Your task to perform on an android device: check the backup settings in the google photos Image 0: 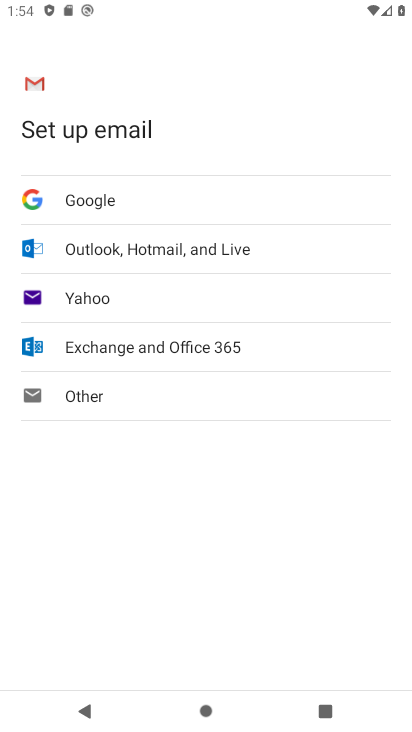
Step 0: press home button
Your task to perform on an android device: check the backup settings in the google photos Image 1: 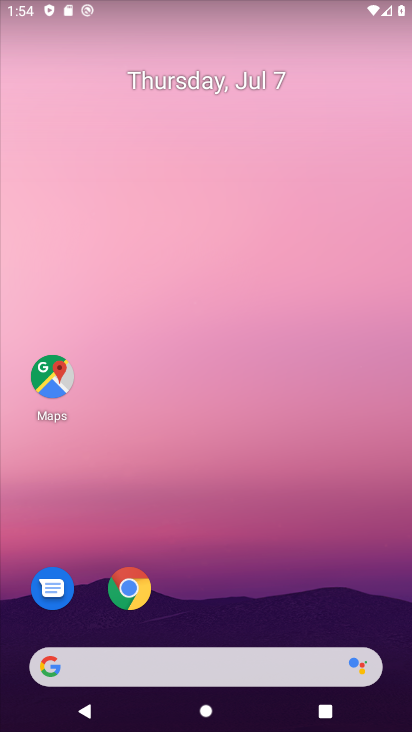
Step 1: drag from (343, 602) to (312, 40)
Your task to perform on an android device: check the backup settings in the google photos Image 2: 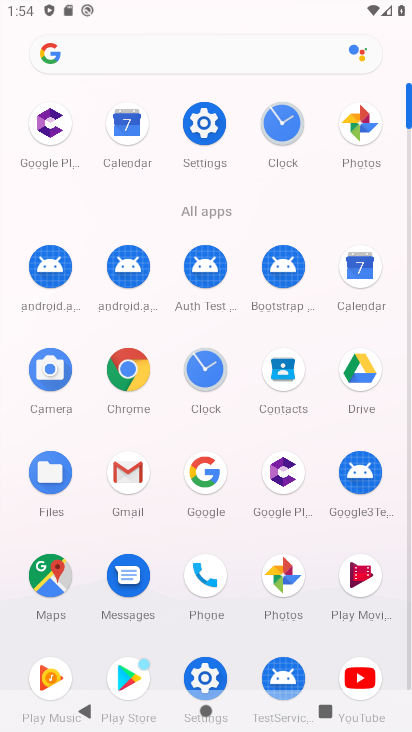
Step 2: click (281, 574)
Your task to perform on an android device: check the backup settings in the google photos Image 3: 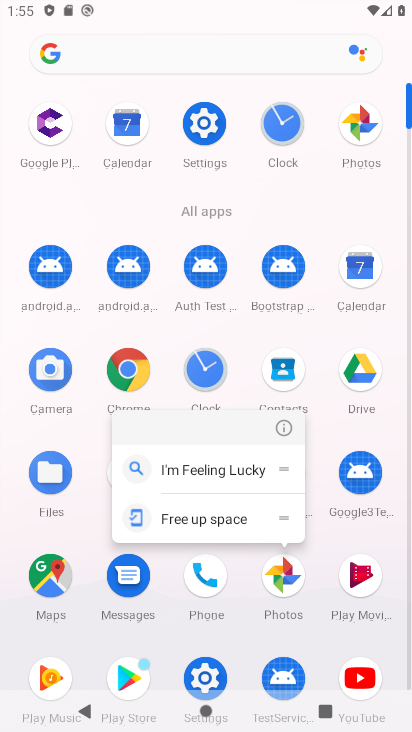
Step 3: click (281, 574)
Your task to perform on an android device: check the backup settings in the google photos Image 4: 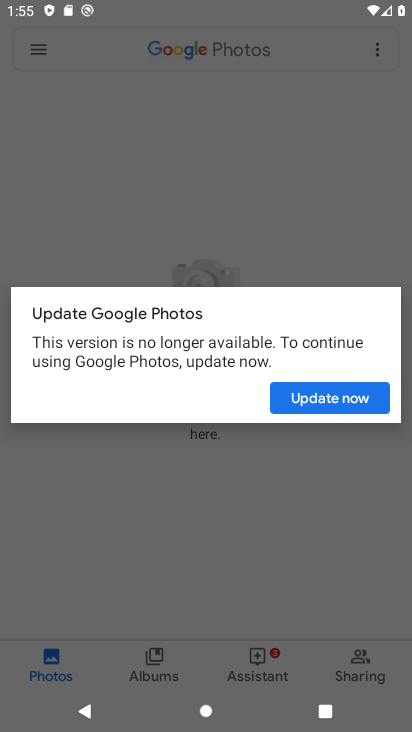
Step 4: click (326, 392)
Your task to perform on an android device: check the backup settings in the google photos Image 5: 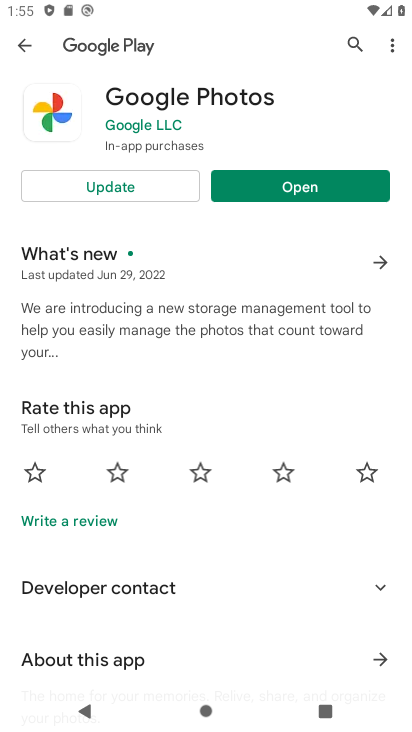
Step 5: click (102, 183)
Your task to perform on an android device: check the backup settings in the google photos Image 6: 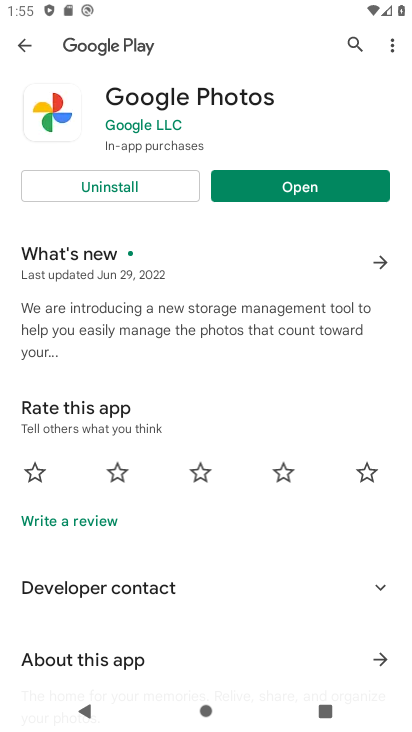
Step 6: click (301, 188)
Your task to perform on an android device: check the backup settings in the google photos Image 7: 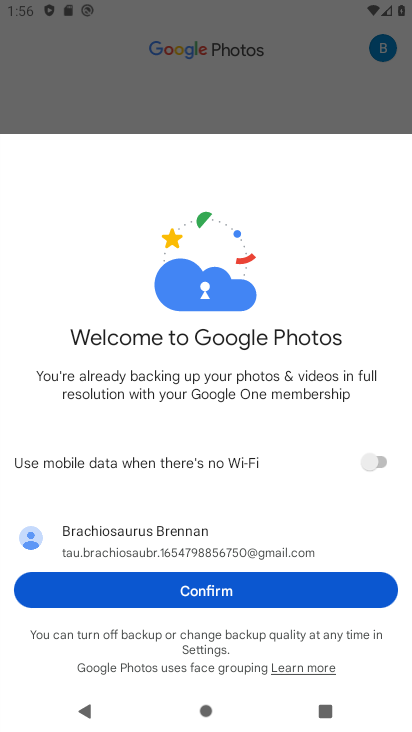
Step 7: click (211, 595)
Your task to perform on an android device: check the backup settings in the google photos Image 8: 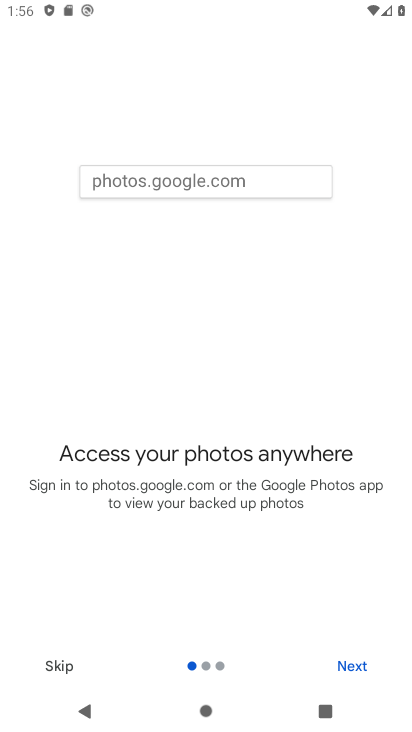
Step 8: click (50, 665)
Your task to perform on an android device: check the backup settings in the google photos Image 9: 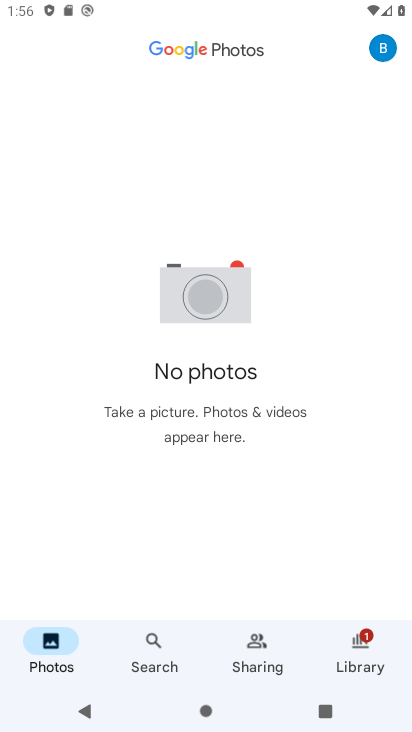
Step 9: click (385, 49)
Your task to perform on an android device: check the backup settings in the google photos Image 10: 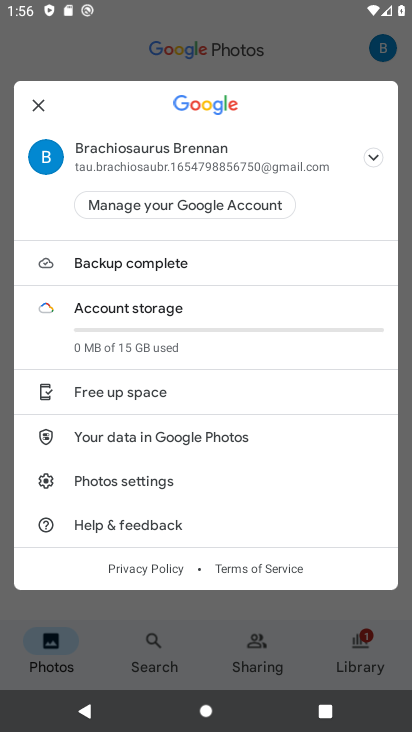
Step 10: click (104, 483)
Your task to perform on an android device: check the backup settings in the google photos Image 11: 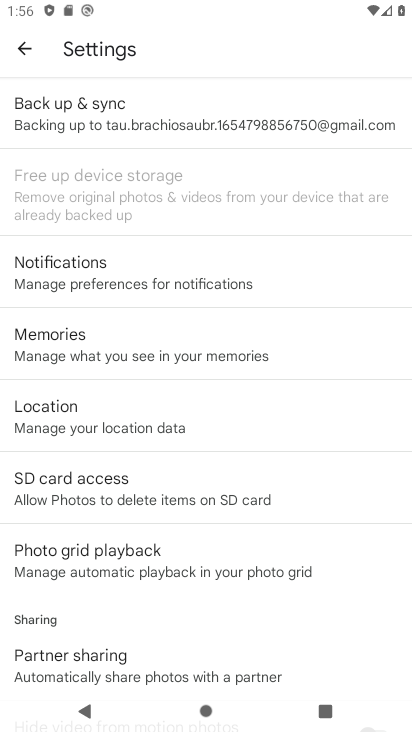
Step 11: click (71, 106)
Your task to perform on an android device: check the backup settings in the google photos Image 12: 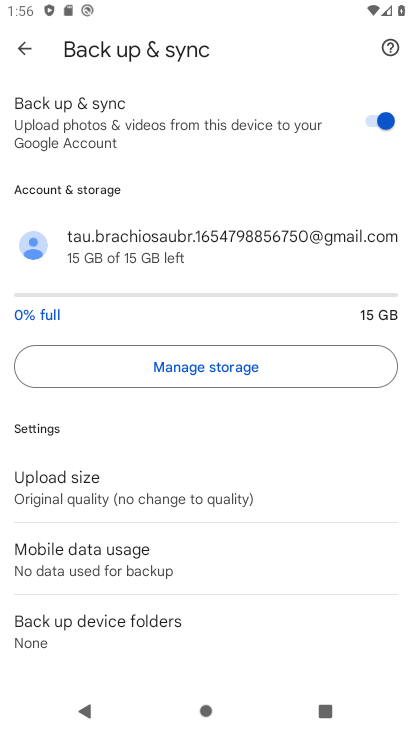
Step 12: task complete